Your task to perform on an android device: turn on the 12-hour format for clock Image 0: 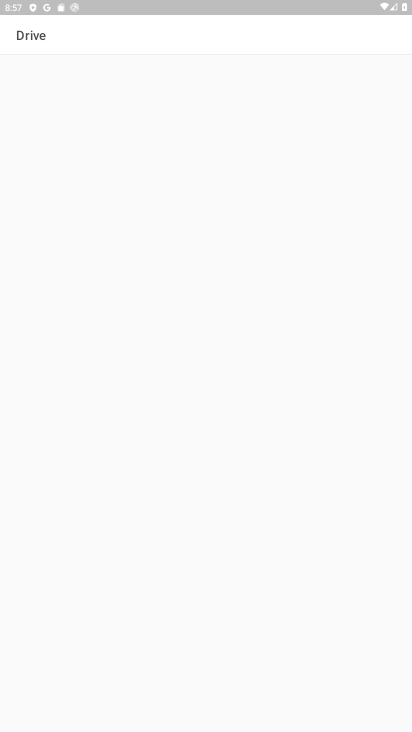
Step 0: press home button
Your task to perform on an android device: turn on the 12-hour format for clock Image 1: 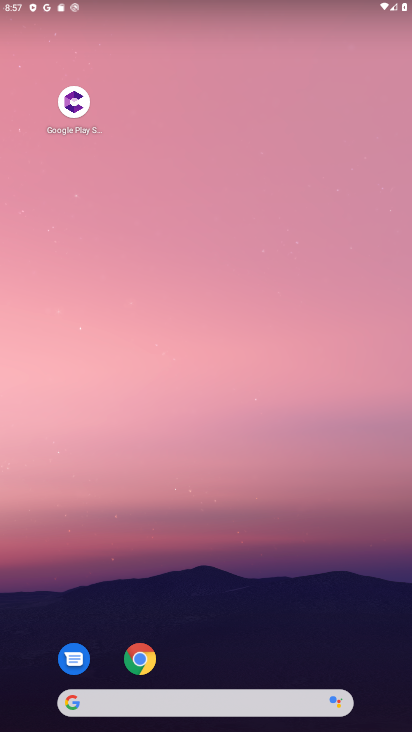
Step 1: drag from (175, 623) to (192, 18)
Your task to perform on an android device: turn on the 12-hour format for clock Image 2: 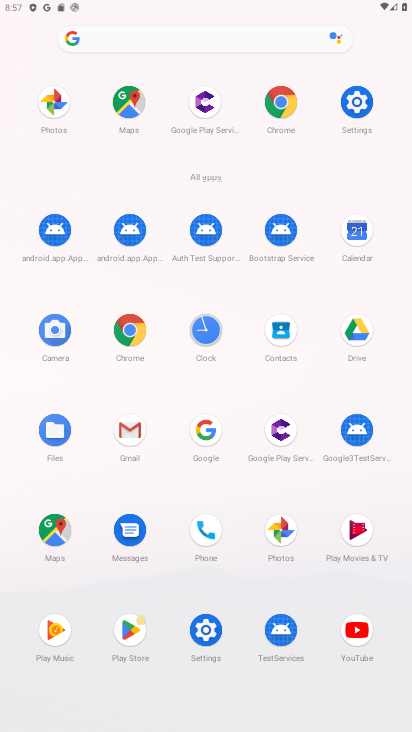
Step 2: click (205, 326)
Your task to perform on an android device: turn on the 12-hour format for clock Image 3: 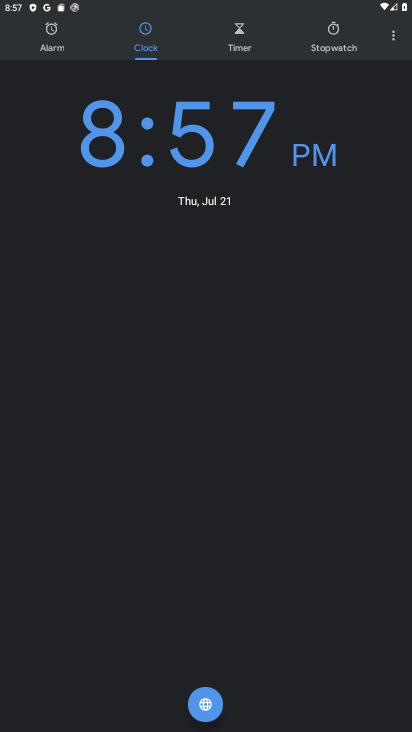
Step 3: click (401, 30)
Your task to perform on an android device: turn on the 12-hour format for clock Image 4: 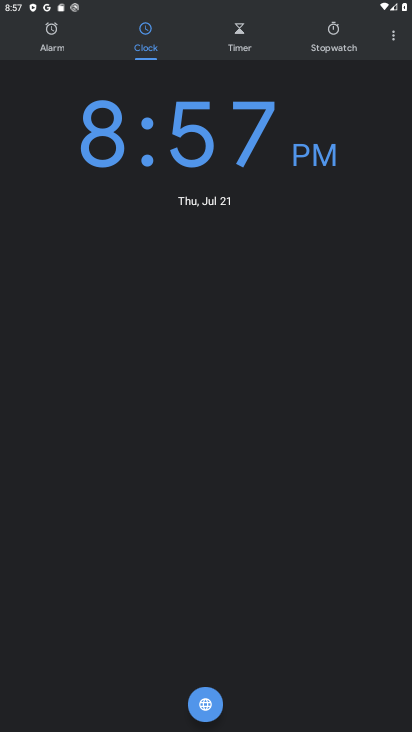
Step 4: click (392, 39)
Your task to perform on an android device: turn on the 12-hour format for clock Image 5: 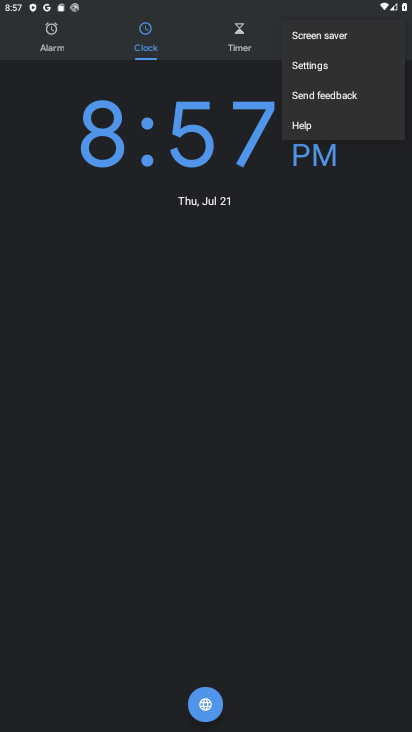
Step 5: click (315, 72)
Your task to perform on an android device: turn on the 12-hour format for clock Image 6: 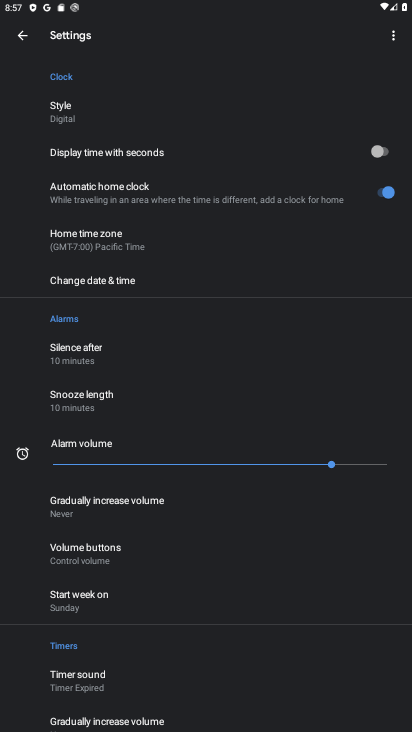
Step 6: click (115, 271)
Your task to perform on an android device: turn on the 12-hour format for clock Image 7: 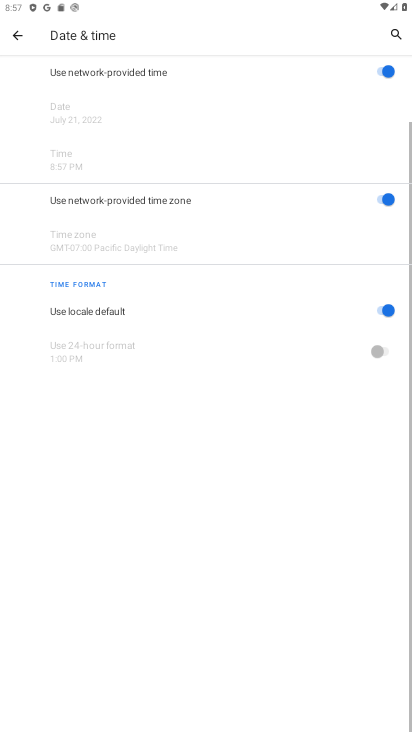
Step 7: click (128, 317)
Your task to perform on an android device: turn on the 12-hour format for clock Image 8: 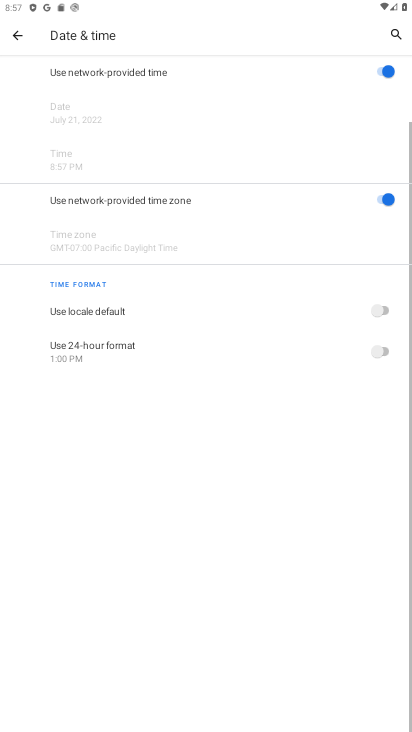
Step 8: click (128, 356)
Your task to perform on an android device: turn on the 12-hour format for clock Image 9: 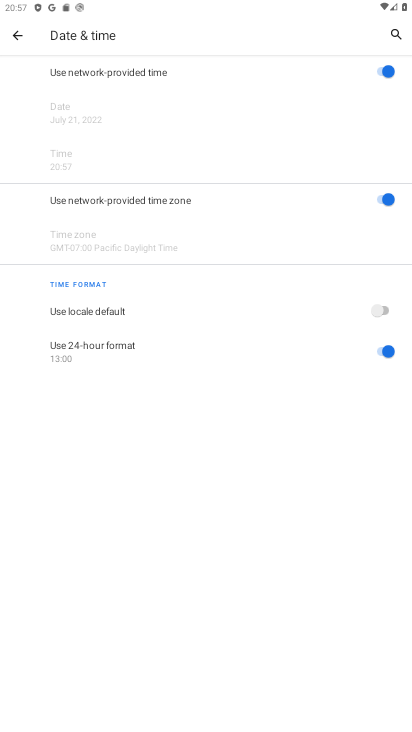
Step 9: task complete